Your task to perform on an android device: toggle show notifications on the lock screen Image 0: 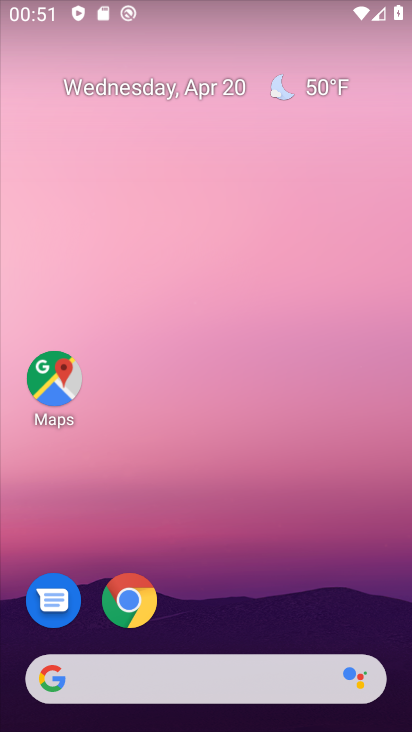
Step 0: drag from (213, 413) to (221, 173)
Your task to perform on an android device: toggle show notifications on the lock screen Image 1: 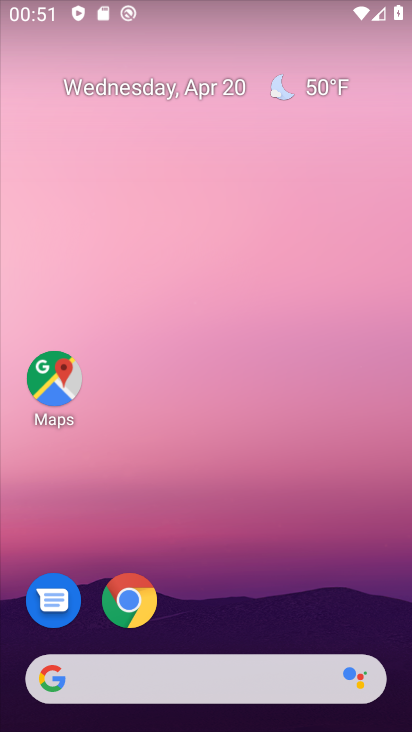
Step 1: drag from (260, 588) to (249, 123)
Your task to perform on an android device: toggle show notifications on the lock screen Image 2: 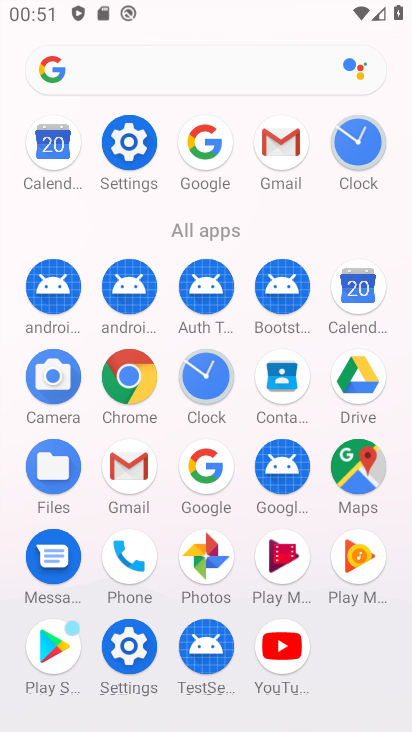
Step 2: click (141, 143)
Your task to perform on an android device: toggle show notifications on the lock screen Image 3: 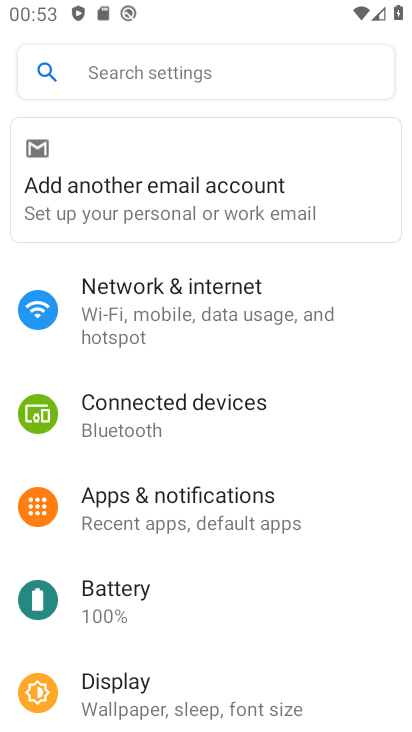
Step 3: click (203, 522)
Your task to perform on an android device: toggle show notifications on the lock screen Image 4: 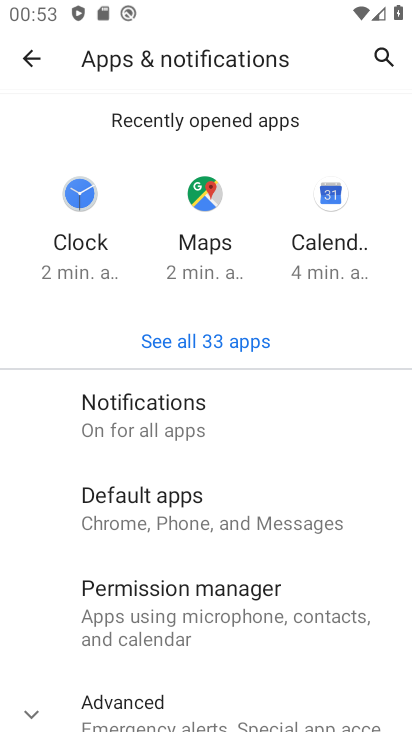
Step 4: click (193, 417)
Your task to perform on an android device: toggle show notifications on the lock screen Image 5: 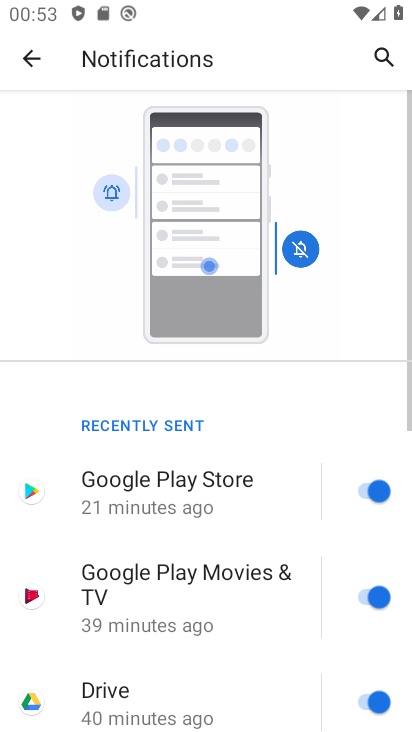
Step 5: drag from (209, 596) to (214, 148)
Your task to perform on an android device: toggle show notifications on the lock screen Image 6: 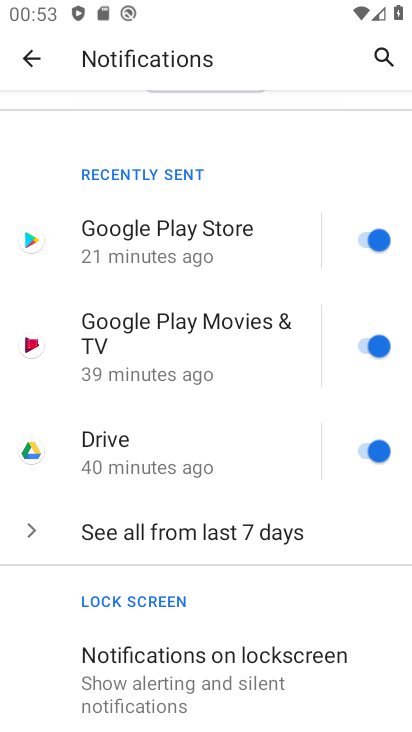
Step 6: click (196, 656)
Your task to perform on an android device: toggle show notifications on the lock screen Image 7: 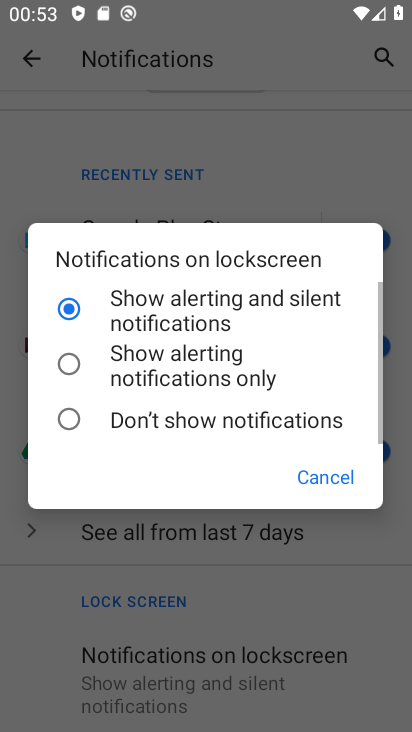
Step 7: click (82, 356)
Your task to perform on an android device: toggle show notifications on the lock screen Image 8: 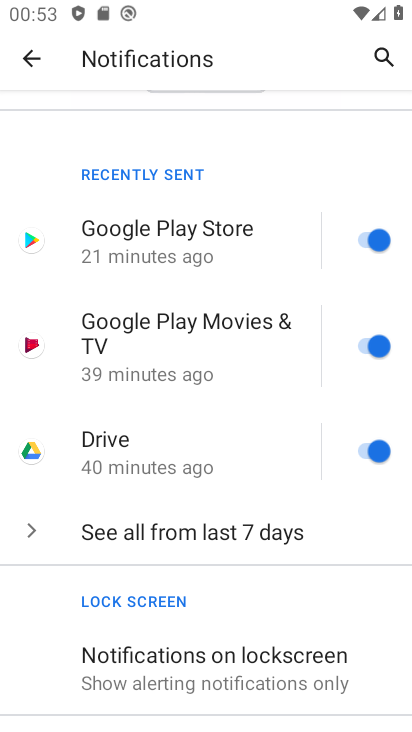
Step 8: task complete